Your task to perform on an android device: When is my next meeting? Image 0: 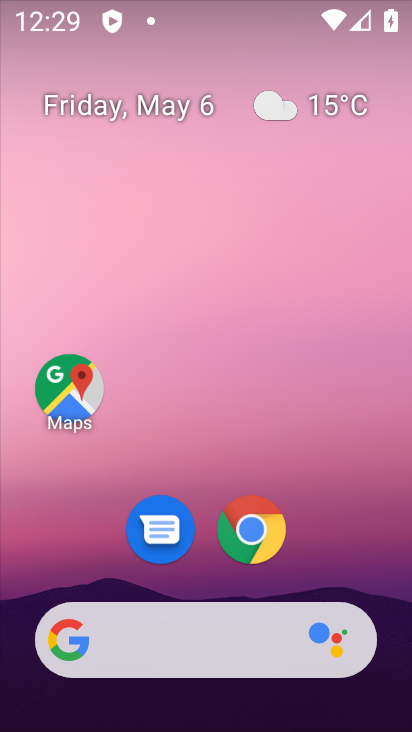
Step 0: drag from (230, 432) to (275, 25)
Your task to perform on an android device: When is my next meeting? Image 1: 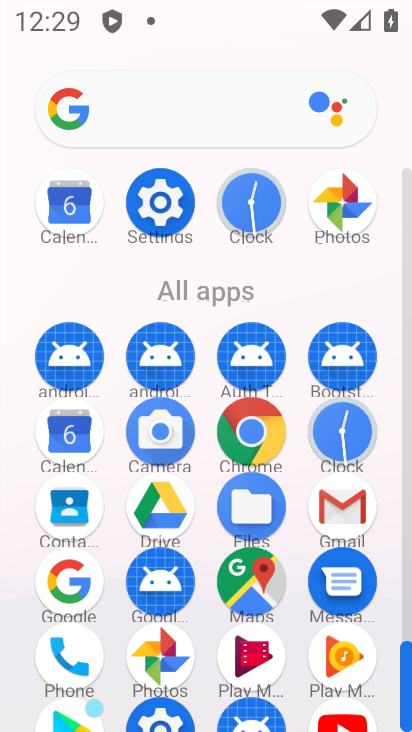
Step 1: click (68, 422)
Your task to perform on an android device: When is my next meeting? Image 2: 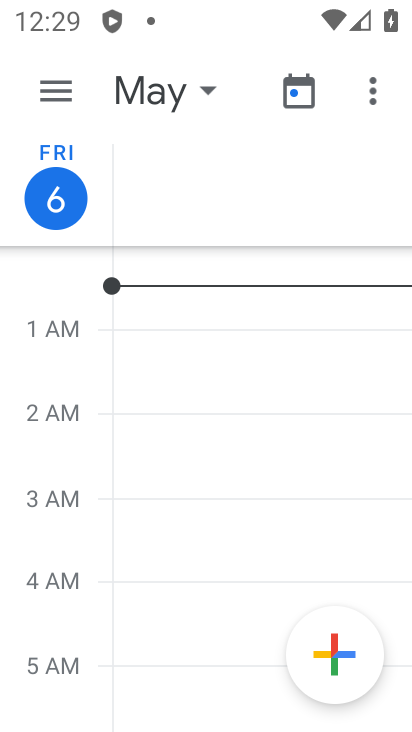
Step 2: click (64, 87)
Your task to perform on an android device: When is my next meeting? Image 3: 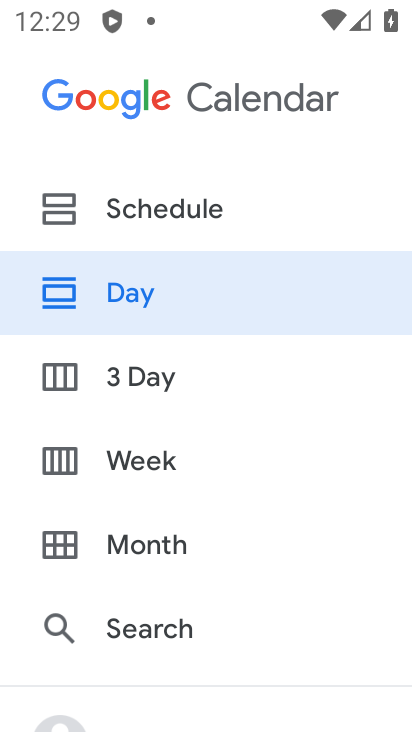
Step 3: click (126, 196)
Your task to perform on an android device: When is my next meeting? Image 4: 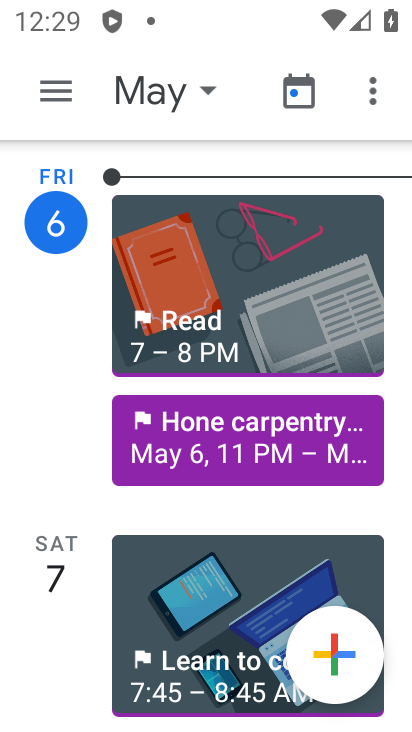
Step 4: drag from (240, 488) to (291, 105)
Your task to perform on an android device: When is my next meeting? Image 5: 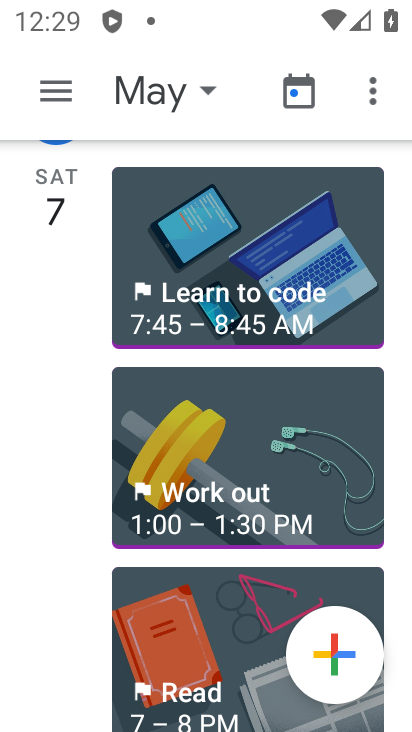
Step 5: drag from (239, 589) to (252, 143)
Your task to perform on an android device: When is my next meeting? Image 6: 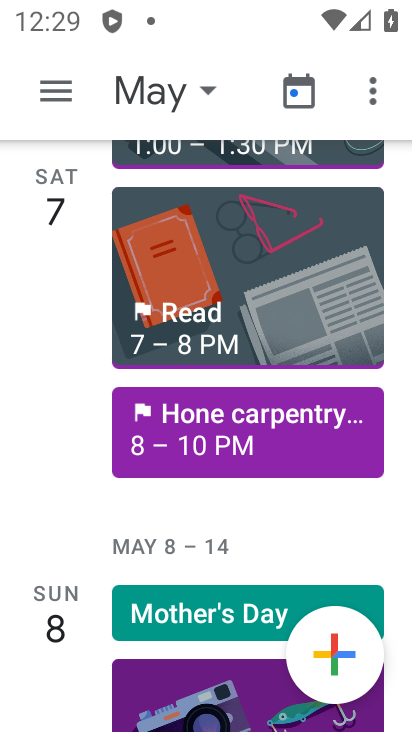
Step 6: click (256, 421)
Your task to perform on an android device: When is my next meeting? Image 7: 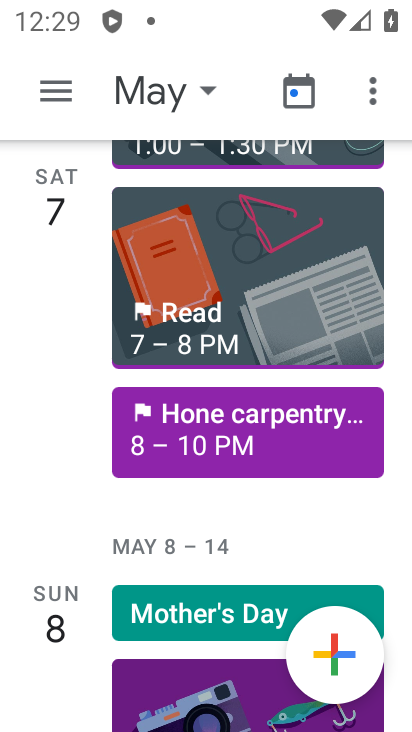
Step 7: drag from (301, 541) to (302, 15)
Your task to perform on an android device: When is my next meeting? Image 8: 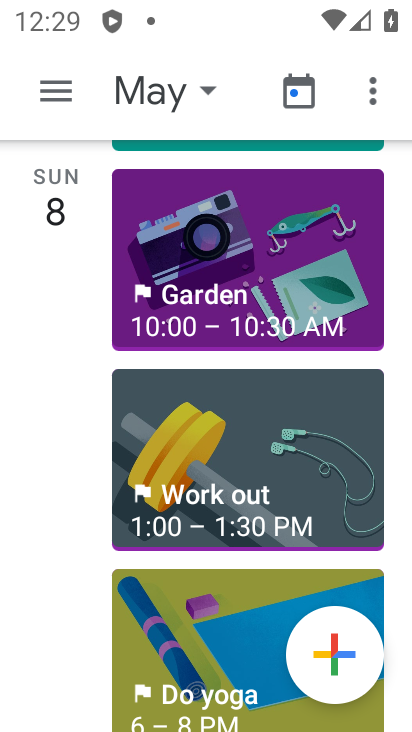
Step 8: drag from (276, 457) to (269, 100)
Your task to perform on an android device: When is my next meeting? Image 9: 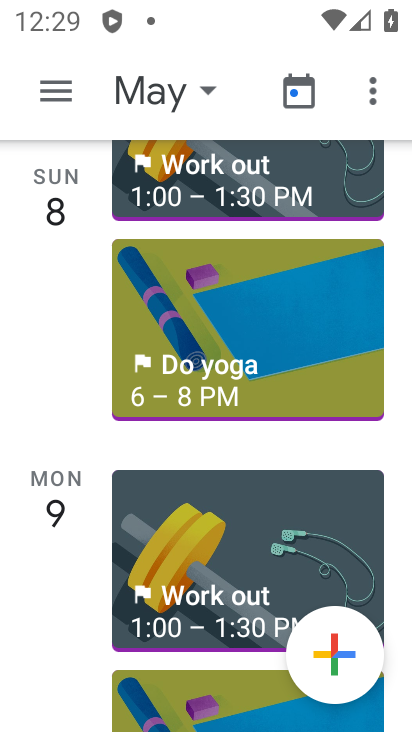
Step 9: drag from (221, 577) to (243, 165)
Your task to perform on an android device: When is my next meeting? Image 10: 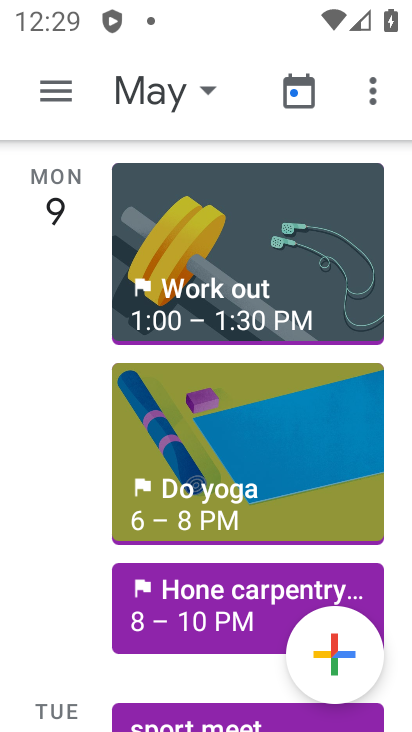
Step 10: drag from (212, 620) to (186, 144)
Your task to perform on an android device: When is my next meeting? Image 11: 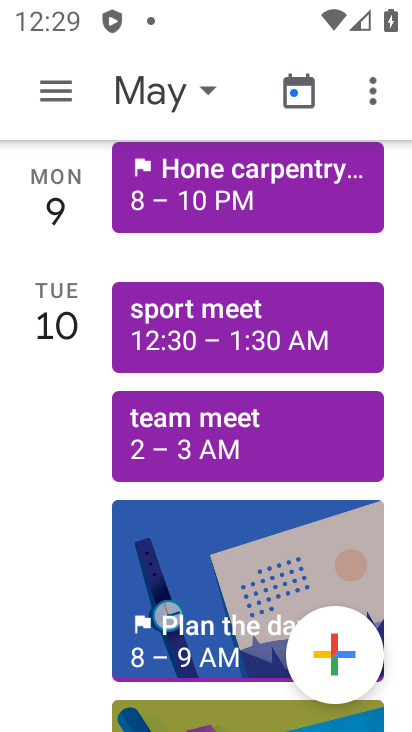
Step 11: click (213, 429)
Your task to perform on an android device: When is my next meeting? Image 12: 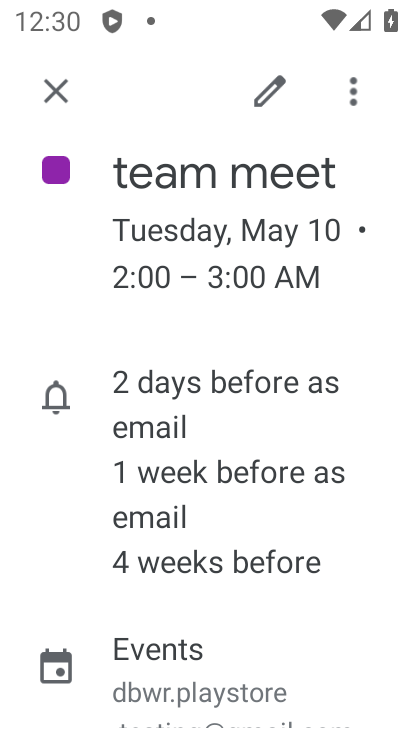
Step 12: task complete